Your task to perform on an android device: delete browsing data in the chrome app Image 0: 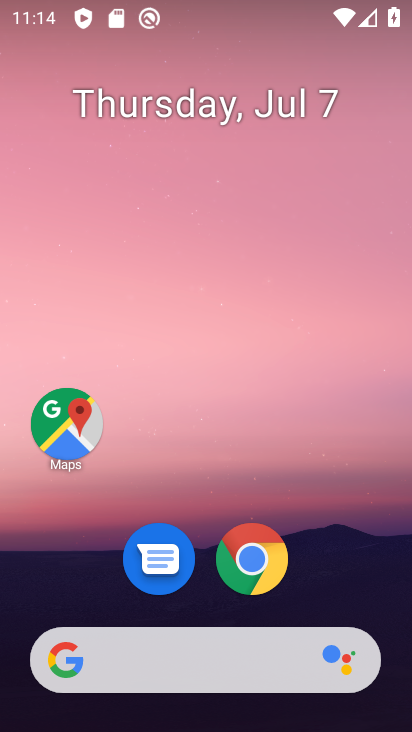
Step 0: drag from (346, 508) to (346, 89)
Your task to perform on an android device: delete browsing data in the chrome app Image 1: 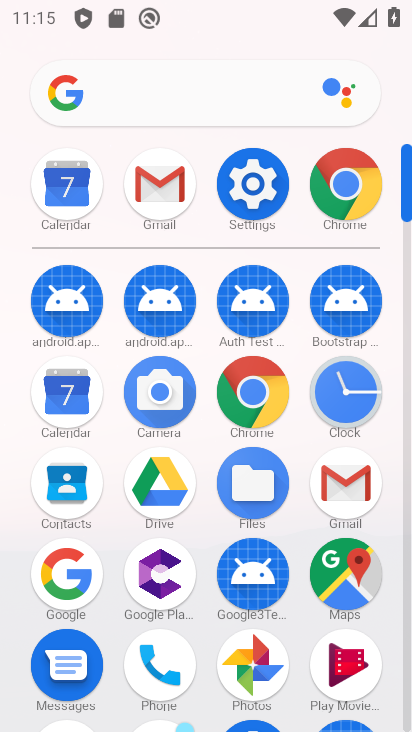
Step 1: click (257, 391)
Your task to perform on an android device: delete browsing data in the chrome app Image 2: 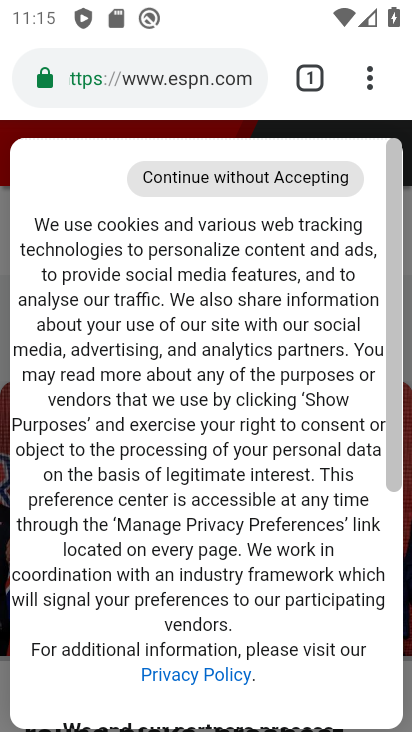
Step 2: click (369, 78)
Your task to perform on an android device: delete browsing data in the chrome app Image 3: 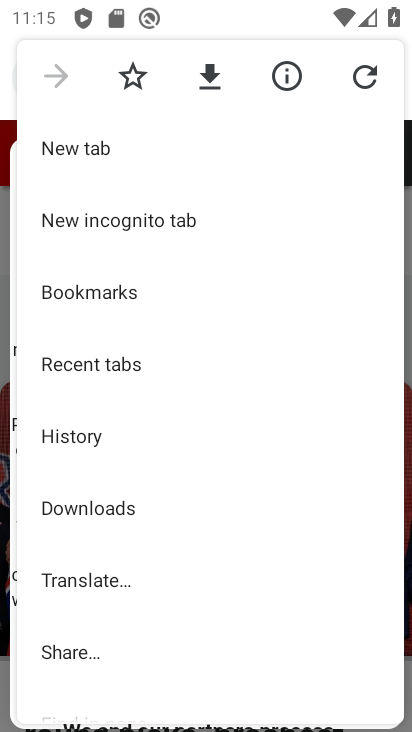
Step 3: drag from (301, 411) to (310, 306)
Your task to perform on an android device: delete browsing data in the chrome app Image 4: 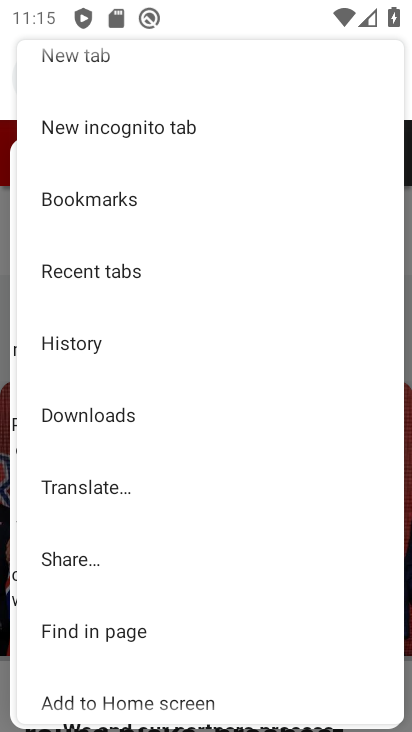
Step 4: drag from (310, 400) to (309, 290)
Your task to perform on an android device: delete browsing data in the chrome app Image 5: 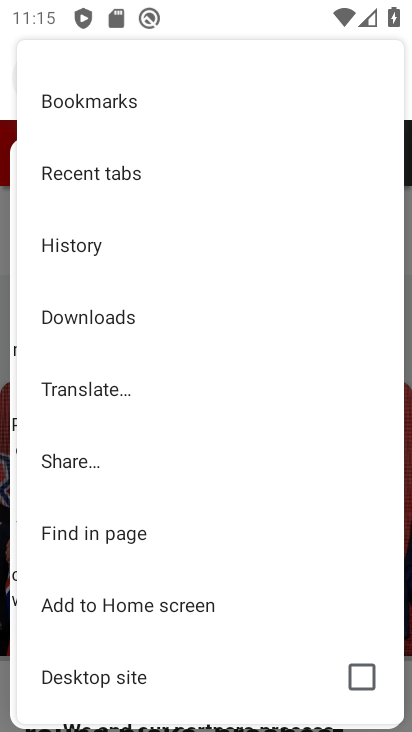
Step 5: drag from (305, 404) to (314, 311)
Your task to perform on an android device: delete browsing data in the chrome app Image 6: 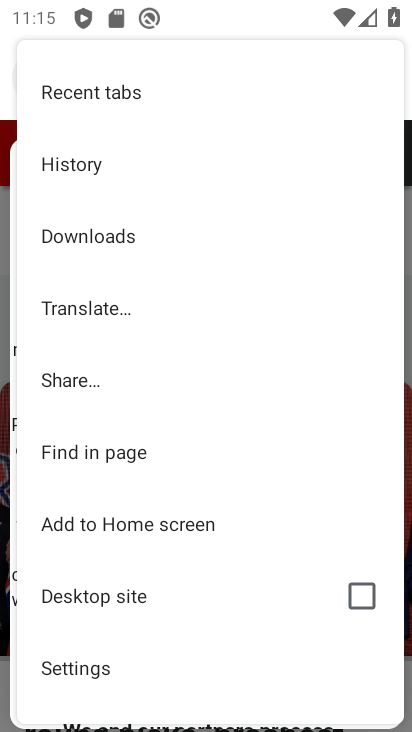
Step 6: drag from (313, 441) to (316, 320)
Your task to perform on an android device: delete browsing data in the chrome app Image 7: 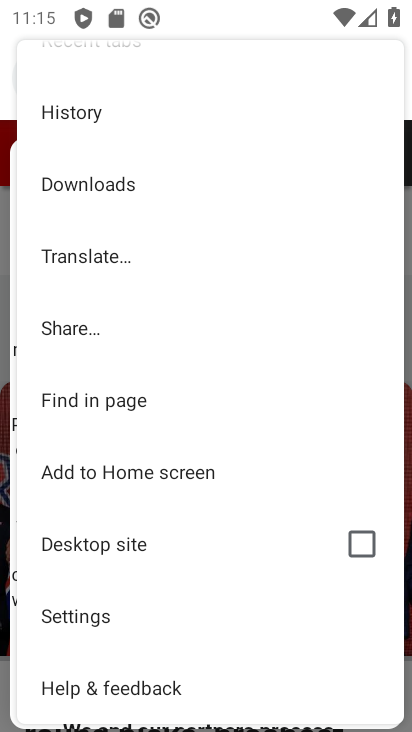
Step 7: click (186, 629)
Your task to perform on an android device: delete browsing data in the chrome app Image 8: 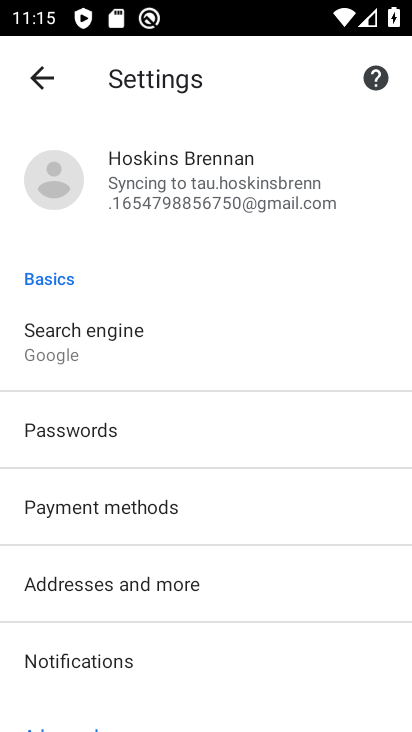
Step 8: drag from (326, 515) to (335, 415)
Your task to perform on an android device: delete browsing data in the chrome app Image 9: 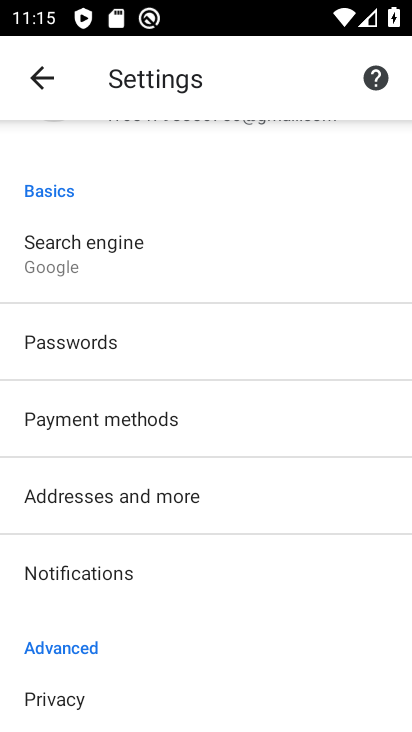
Step 9: drag from (326, 547) to (343, 434)
Your task to perform on an android device: delete browsing data in the chrome app Image 10: 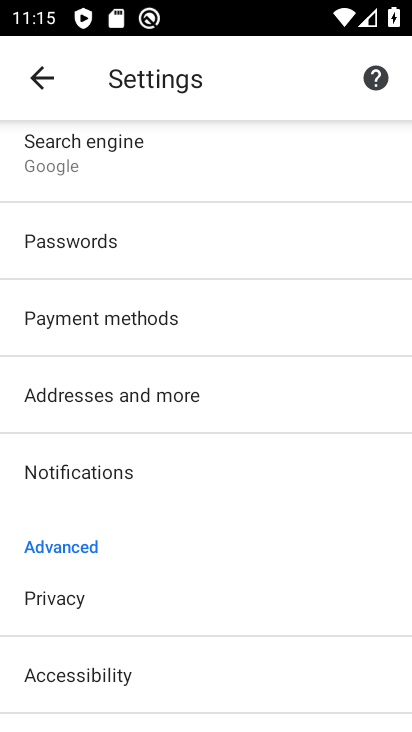
Step 10: drag from (325, 551) to (331, 422)
Your task to perform on an android device: delete browsing data in the chrome app Image 11: 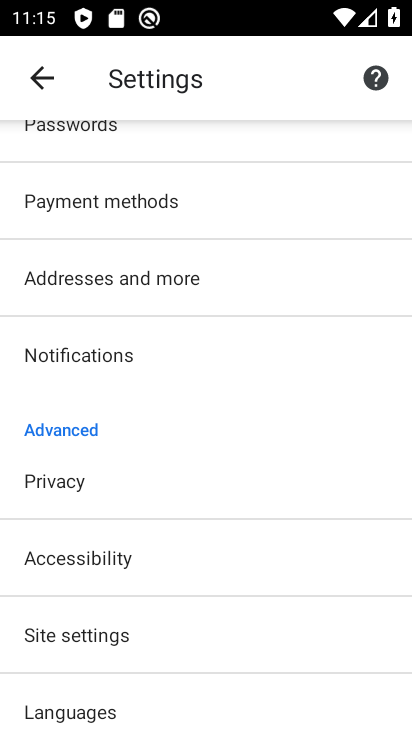
Step 11: click (313, 501)
Your task to perform on an android device: delete browsing data in the chrome app Image 12: 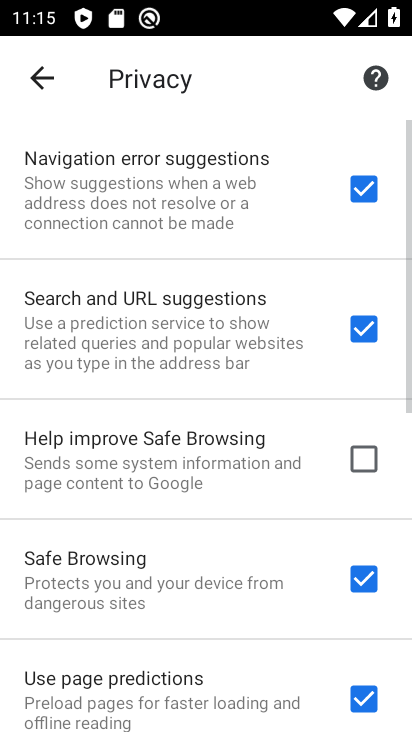
Step 12: drag from (311, 534) to (322, 448)
Your task to perform on an android device: delete browsing data in the chrome app Image 13: 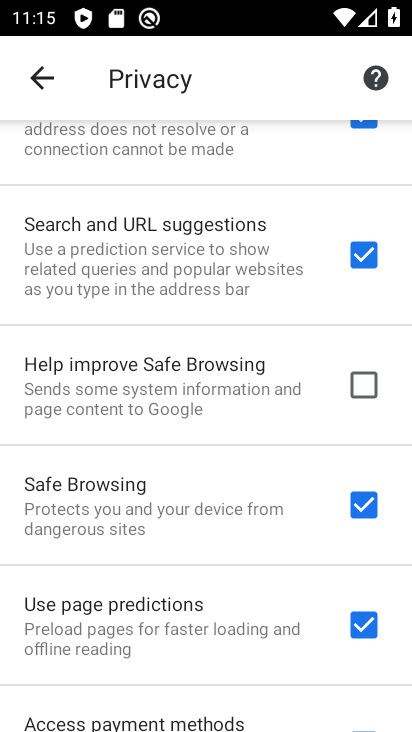
Step 13: drag from (305, 548) to (306, 456)
Your task to perform on an android device: delete browsing data in the chrome app Image 14: 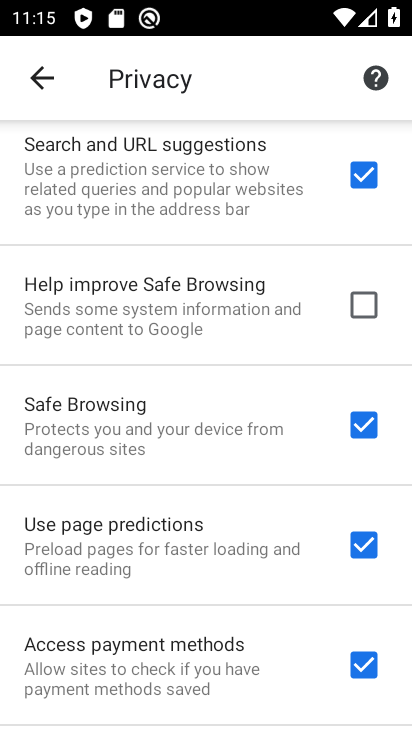
Step 14: drag from (303, 598) to (305, 510)
Your task to perform on an android device: delete browsing data in the chrome app Image 15: 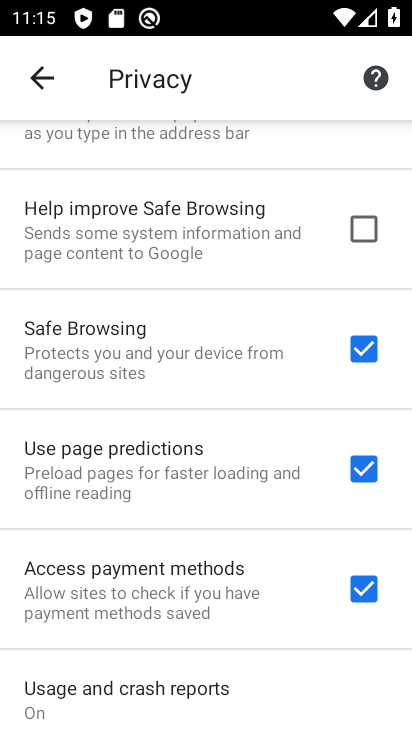
Step 15: drag from (289, 604) to (289, 496)
Your task to perform on an android device: delete browsing data in the chrome app Image 16: 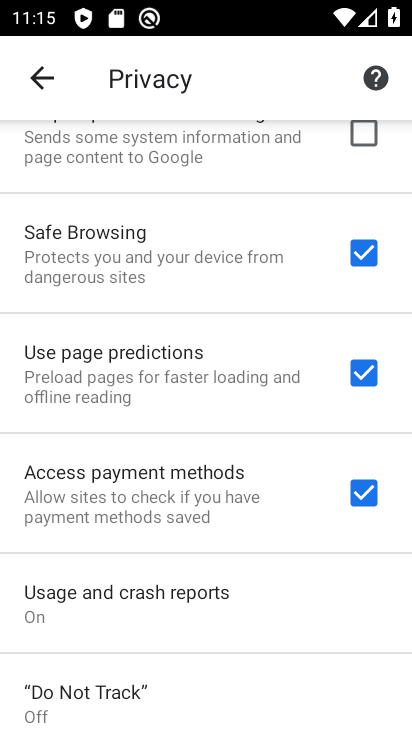
Step 16: drag from (286, 614) to (291, 503)
Your task to perform on an android device: delete browsing data in the chrome app Image 17: 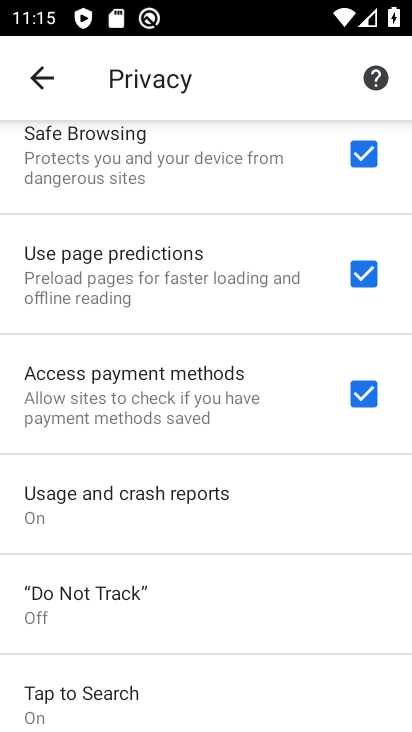
Step 17: drag from (298, 616) to (301, 487)
Your task to perform on an android device: delete browsing data in the chrome app Image 18: 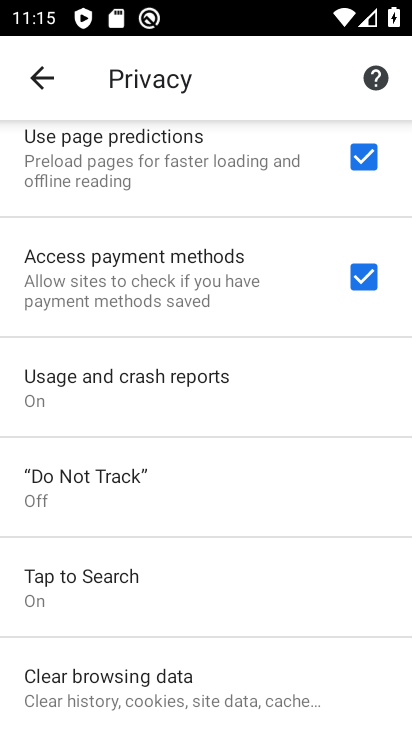
Step 18: drag from (294, 531) to (301, 428)
Your task to perform on an android device: delete browsing data in the chrome app Image 19: 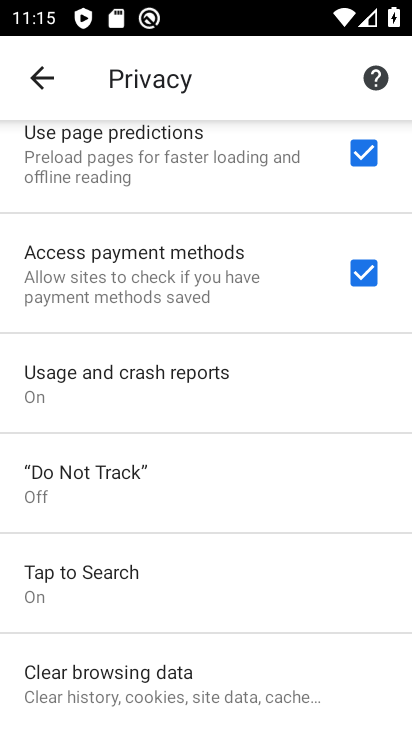
Step 19: click (275, 676)
Your task to perform on an android device: delete browsing data in the chrome app Image 20: 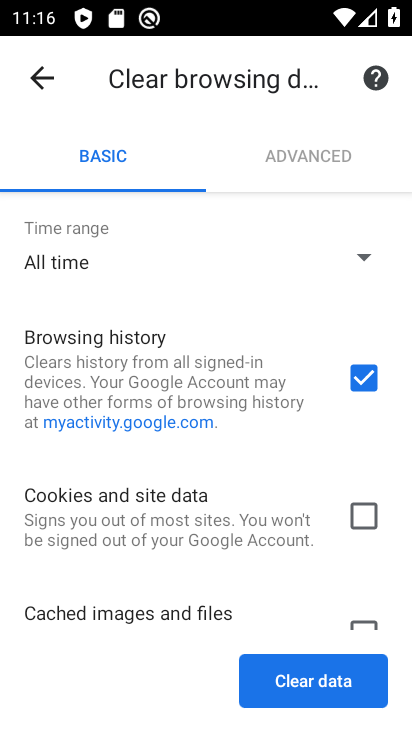
Step 20: click (353, 518)
Your task to perform on an android device: delete browsing data in the chrome app Image 21: 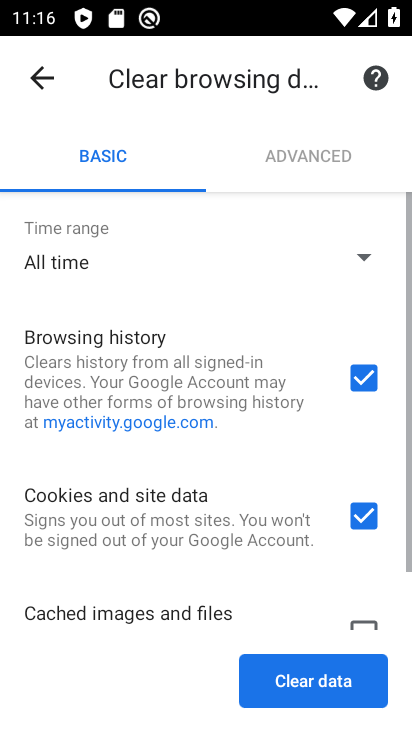
Step 21: drag from (304, 565) to (310, 354)
Your task to perform on an android device: delete browsing data in the chrome app Image 22: 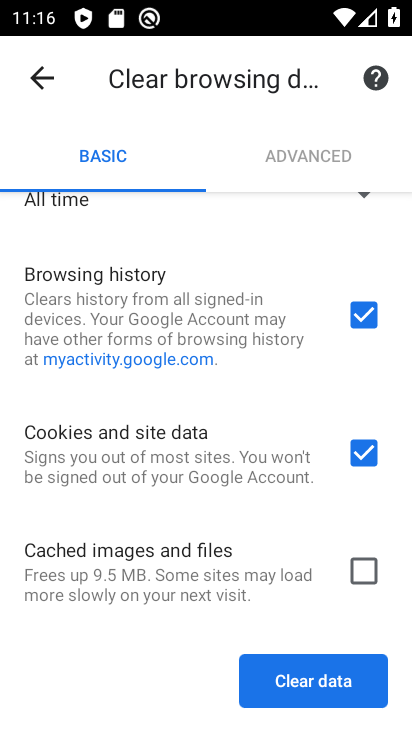
Step 22: click (354, 566)
Your task to perform on an android device: delete browsing data in the chrome app Image 23: 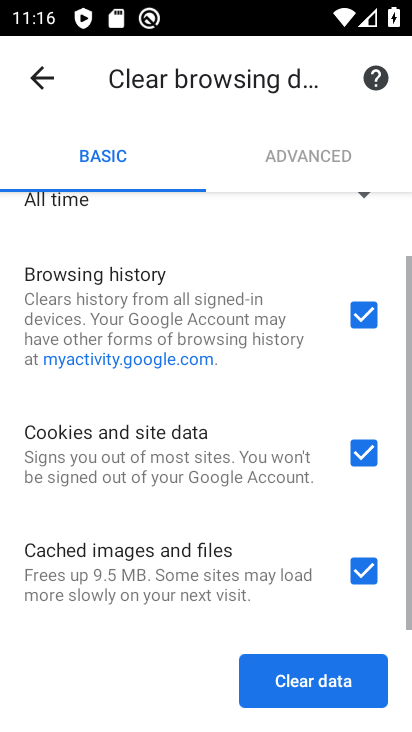
Step 23: click (340, 672)
Your task to perform on an android device: delete browsing data in the chrome app Image 24: 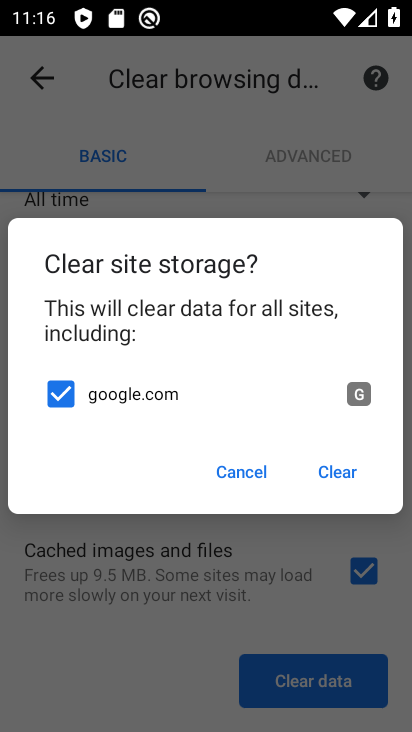
Step 24: click (336, 480)
Your task to perform on an android device: delete browsing data in the chrome app Image 25: 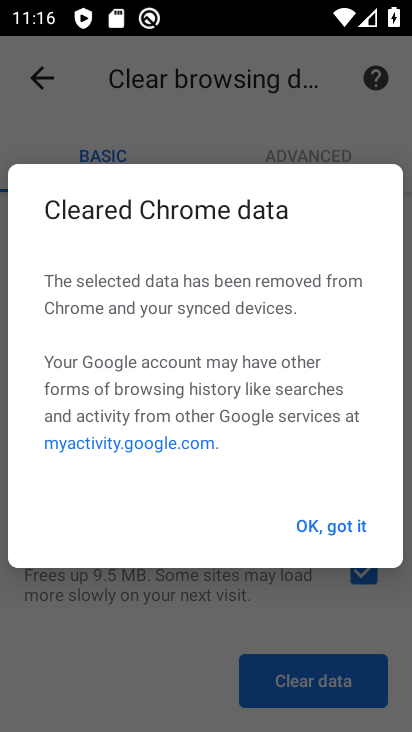
Step 25: click (319, 524)
Your task to perform on an android device: delete browsing data in the chrome app Image 26: 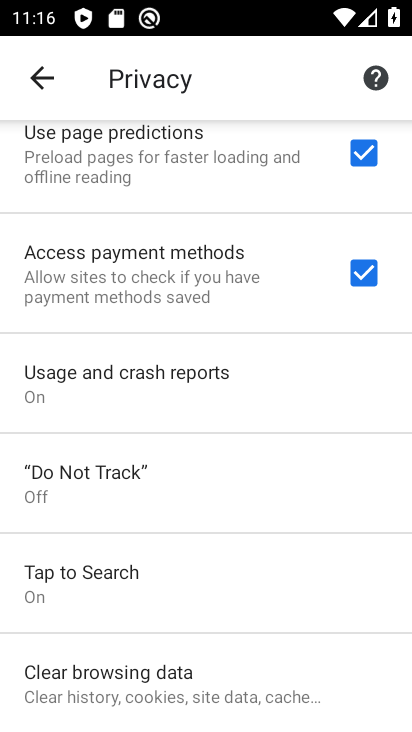
Step 26: task complete